Your task to perform on an android device: turn off improve location accuracy Image 0: 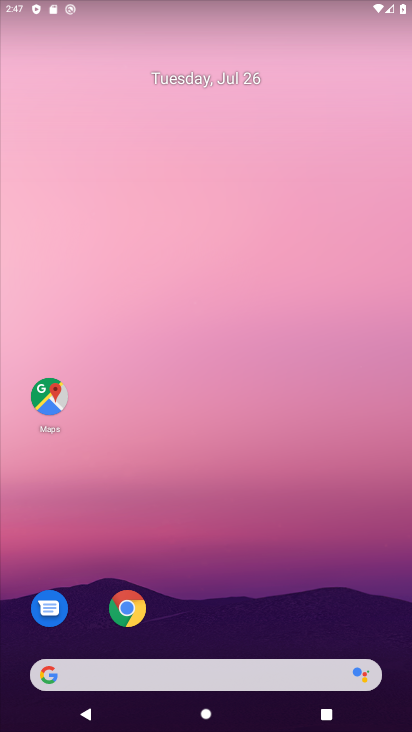
Step 0: drag from (217, 160) to (172, 20)
Your task to perform on an android device: turn off improve location accuracy Image 1: 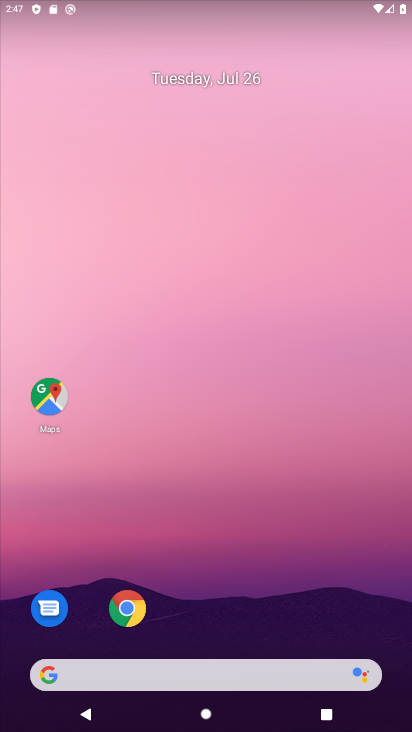
Step 1: drag from (226, 612) to (283, 48)
Your task to perform on an android device: turn off improve location accuracy Image 2: 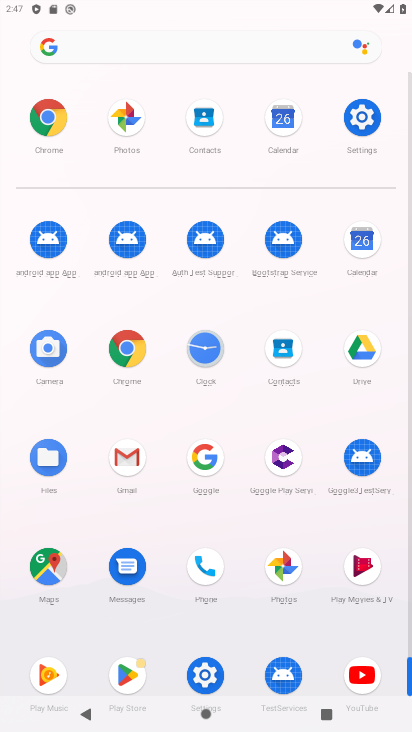
Step 2: click (209, 664)
Your task to perform on an android device: turn off improve location accuracy Image 3: 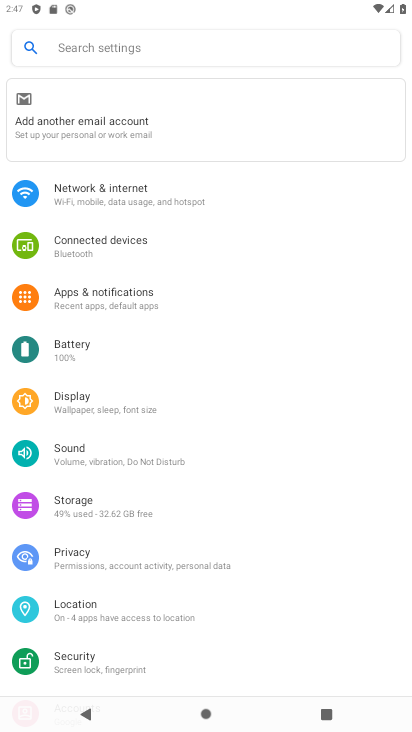
Step 3: click (92, 603)
Your task to perform on an android device: turn off improve location accuracy Image 4: 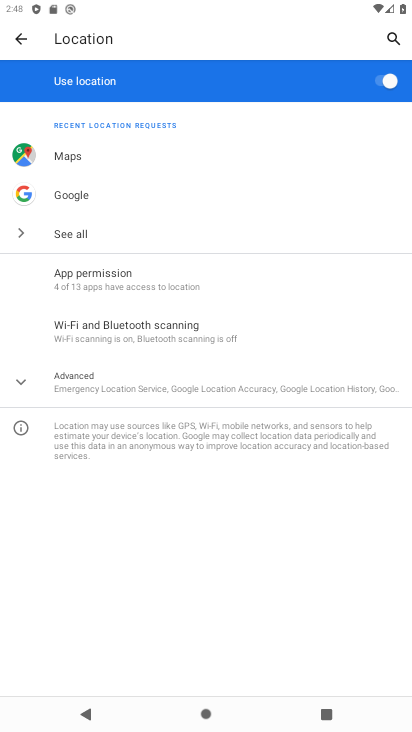
Step 4: click (118, 381)
Your task to perform on an android device: turn off improve location accuracy Image 5: 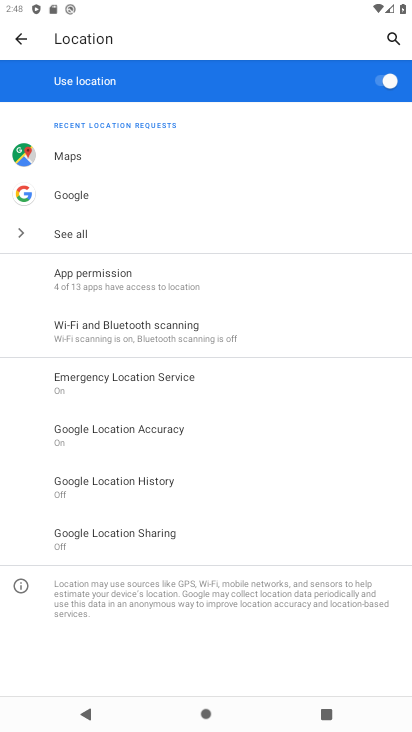
Step 5: click (136, 436)
Your task to perform on an android device: turn off improve location accuracy Image 6: 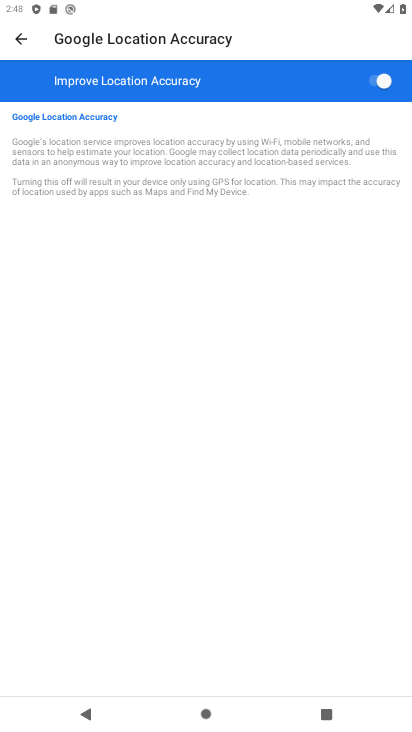
Step 6: click (355, 88)
Your task to perform on an android device: turn off improve location accuracy Image 7: 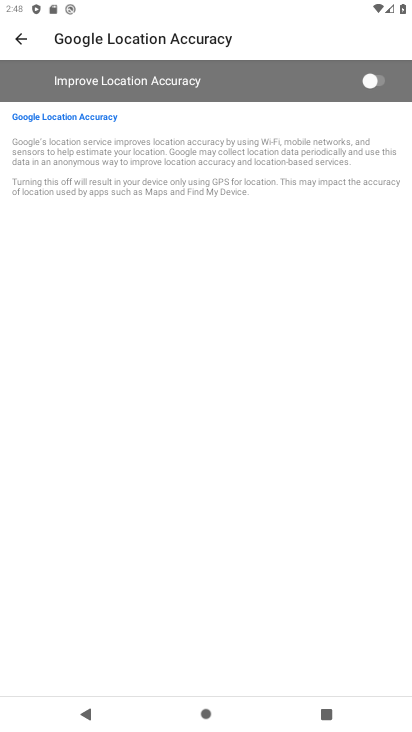
Step 7: task complete